Your task to perform on an android device: turn on the 12-hour format for clock Image 0: 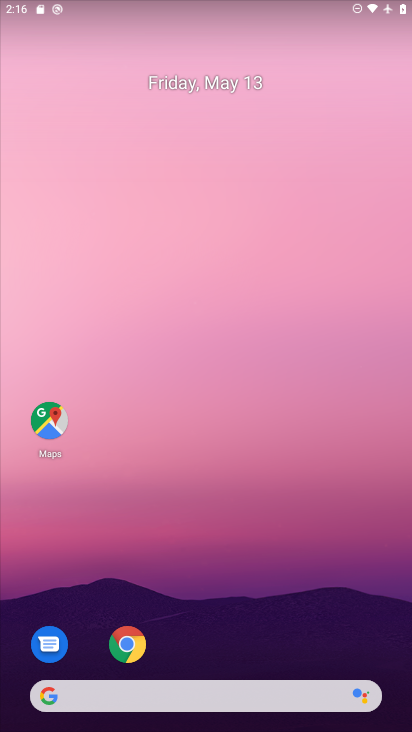
Step 0: drag from (315, 609) to (214, 57)
Your task to perform on an android device: turn on the 12-hour format for clock Image 1: 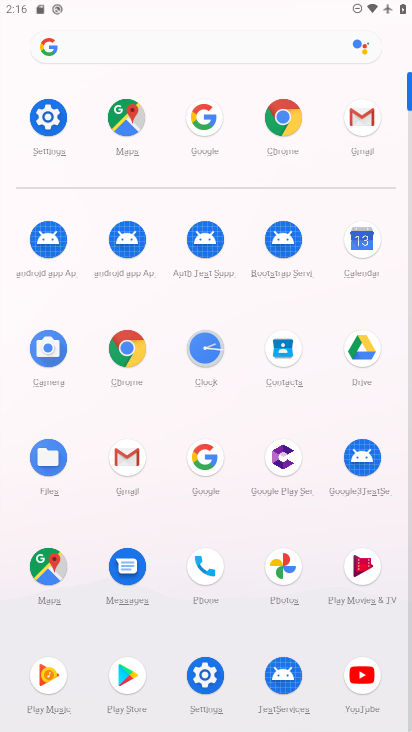
Step 1: click (208, 356)
Your task to perform on an android device: turn on the 12-hour format for clock Image 2: 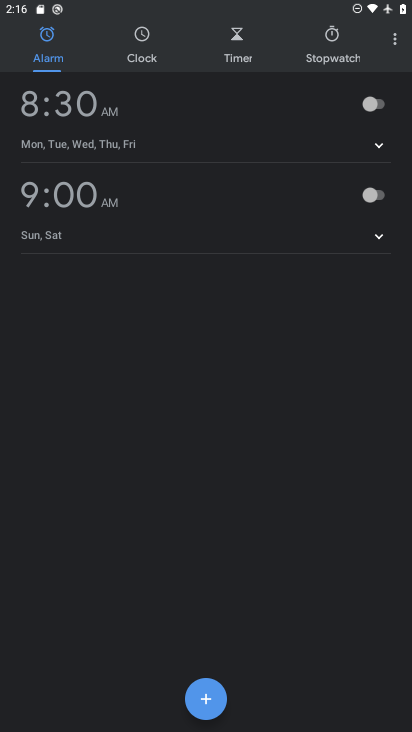
Step 2: click (394, 38)
Your task to perform on an android device: turn on the 12-hour format for clock Image 3: 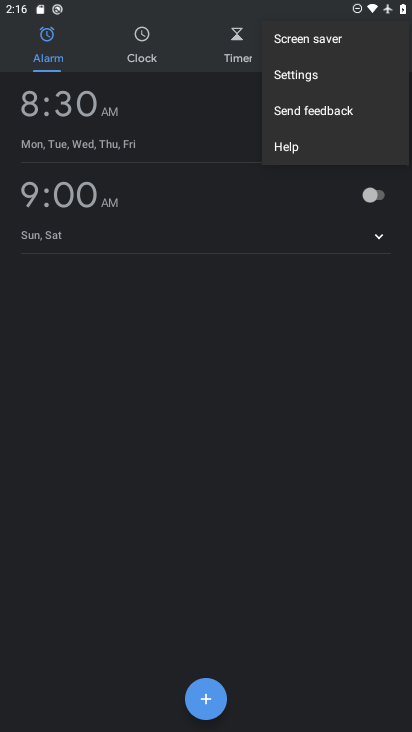
Step 3: click (346, 73)
Your task to perform on an android device: turn on the 12-hour format for clock Image 4: 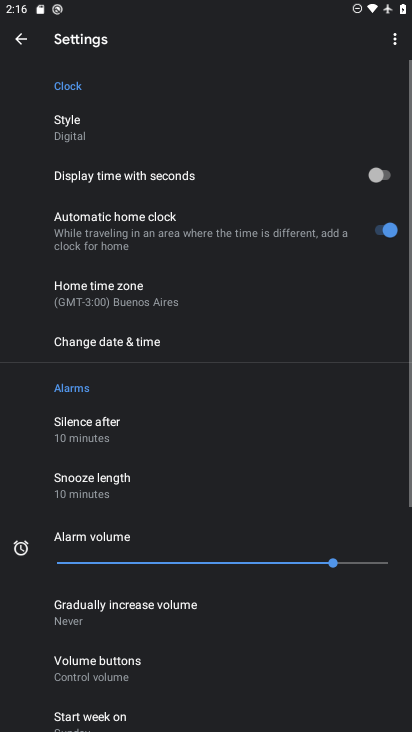
Step 4: click (127, 349)
Your task to perform on an android device: turn on the 12-hour format for clock Image 5: 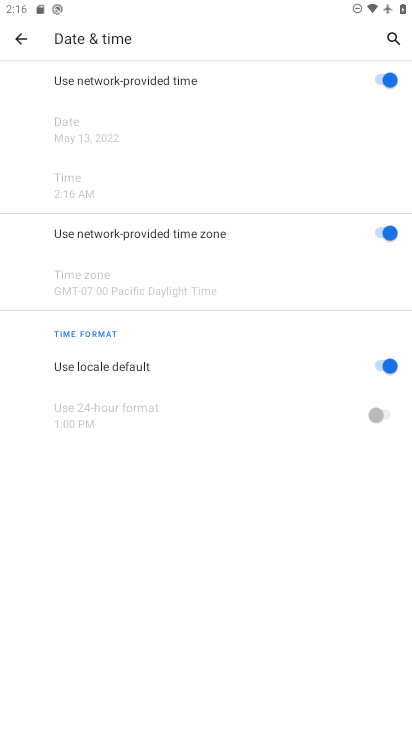
Step 5: task complete